Your task to perform on an android device: turn pop-ups off in chrome Image 0: 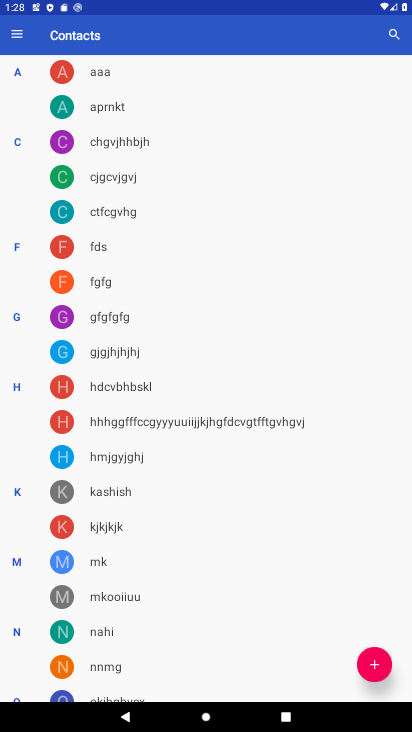
Step 0: press back button
Your task to perform on an android device: turn pop-ups off in chrome Image 1: 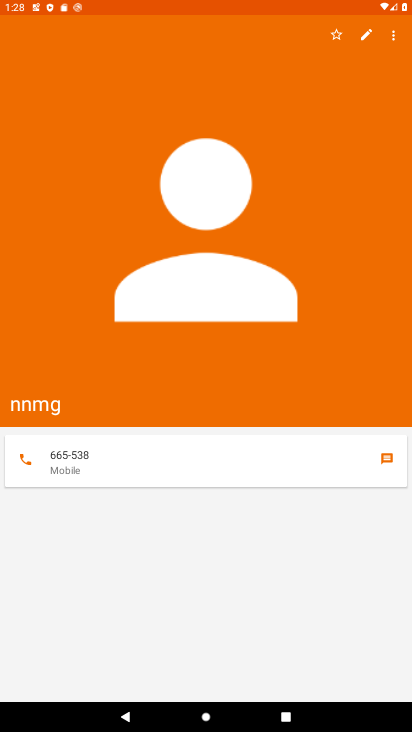
Step 1: press back button
Your task to perform on an android device: turn pop-ups off in chrome Image 2: 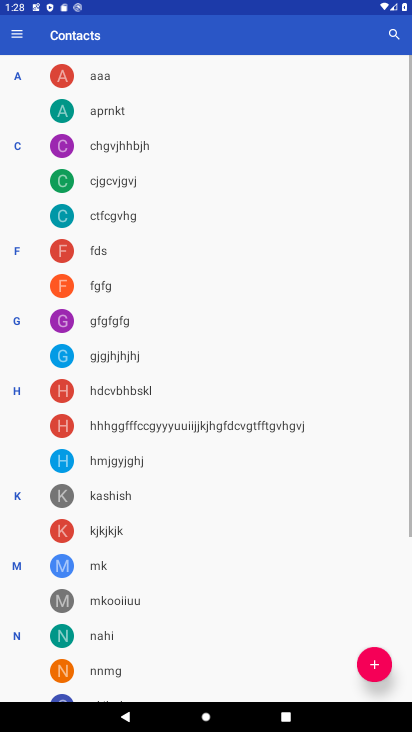
Step 2: press back button
Your task to perform on an android device: turn pop-ups off in chrome Image 3: 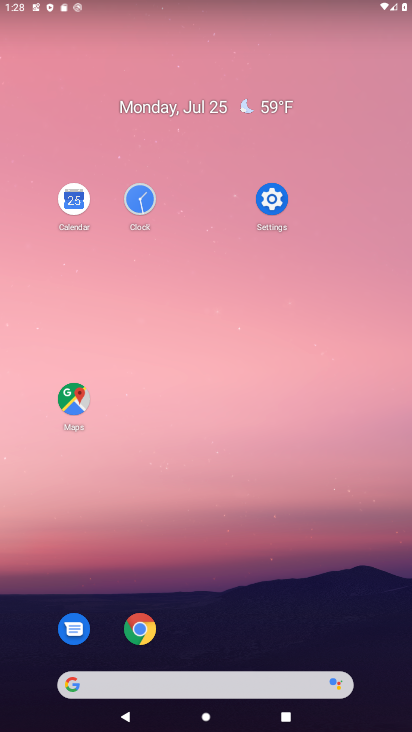
Step 3: click (133, 644)
Your task to perform on an android device: turn pop-ups off in chrome Image 4: 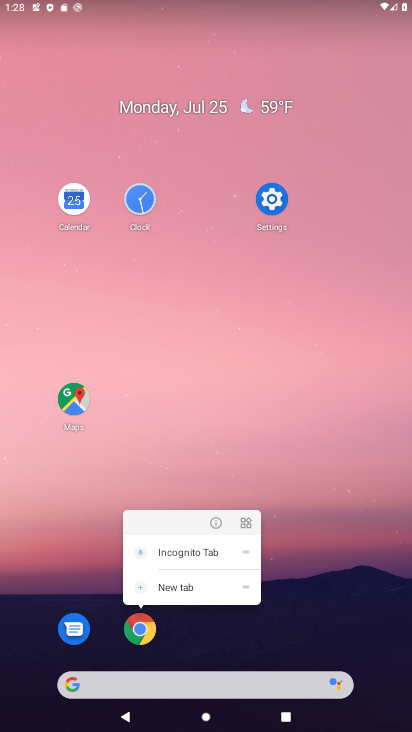
Step 4: click (161, 638)
Your task to perform on an android device: turn pop-ups off in chrome Image 5: 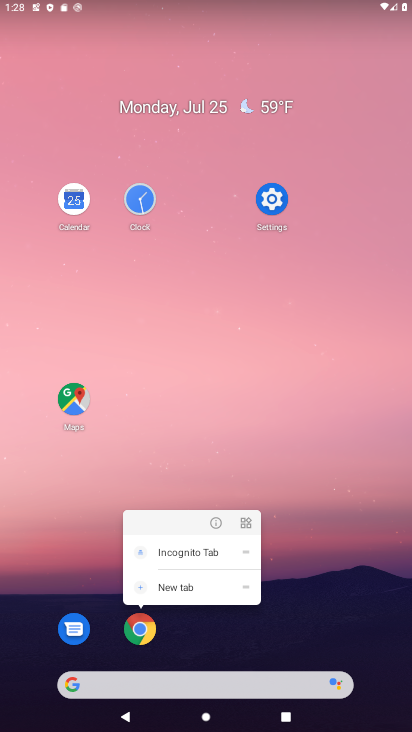
Step 5: click (146, 627)
Your task to perform on an android device: turn pop-ups off in chrome Image 6: 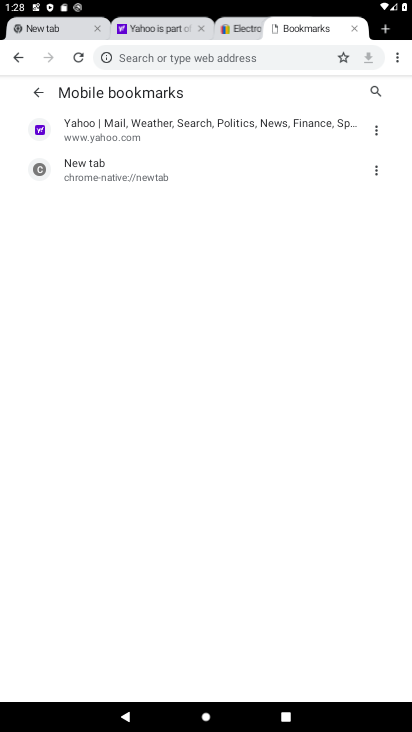
Step 6: click (396, 56)
Your task to perform on an android device: turn pop-ups off in chrome Image 7: 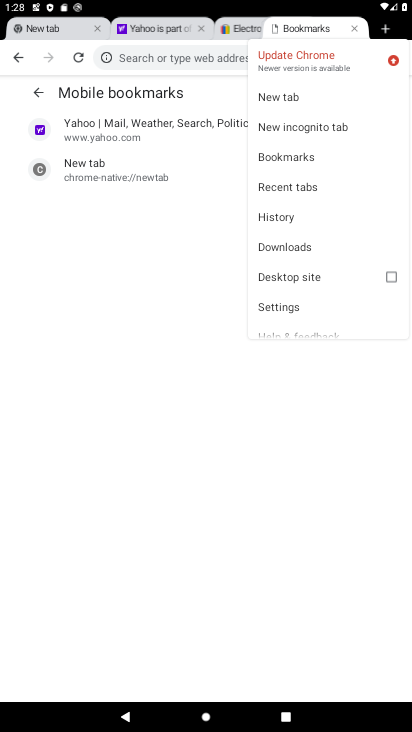
Step 7: click (297, 314)
Your task to perform on an android device: turn pop-ups off in chrome Image 8: 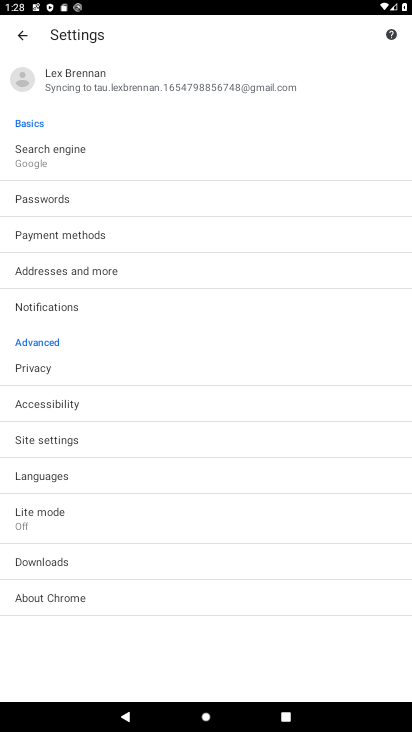
Step 8: click (103, 443)
Your task to perform on an android device: turn pop-ups off in chrome Image 9: 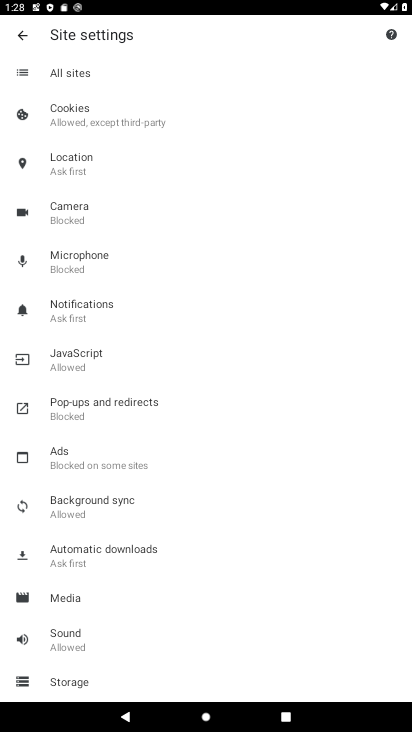
Step 9: click (106, 404)
Your task to perform on an android device: turn pop-ups off in chrome Image 10: 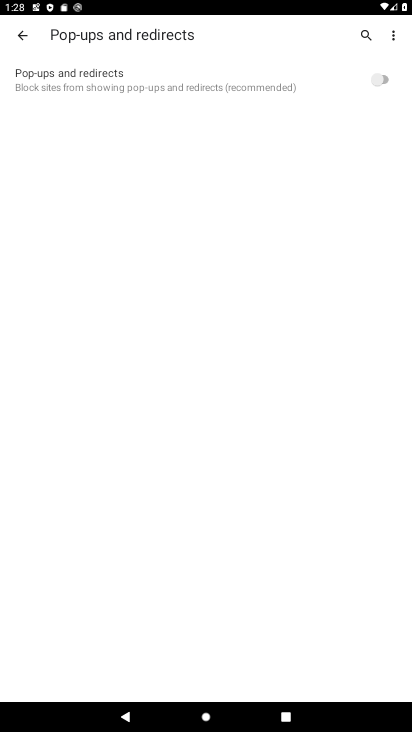
Step 10: task complete